Your task to perform on an android device: Show me the alarms in the clock app Image 0: 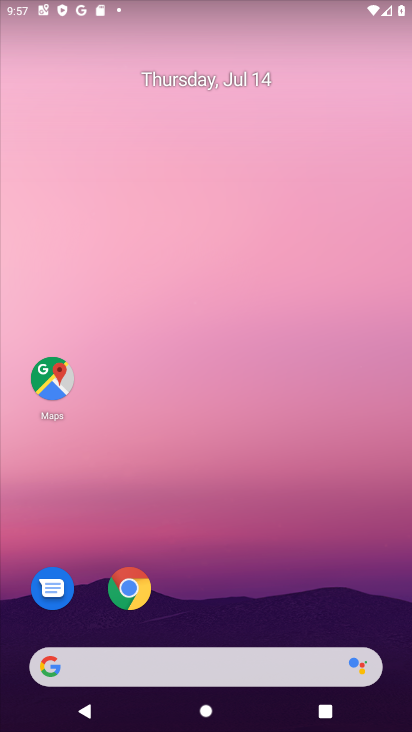
Step 0: drag from (180, 665) to (312, 156)
Your task to perform on an android device: Show me the alarms in the clock app Image 1: 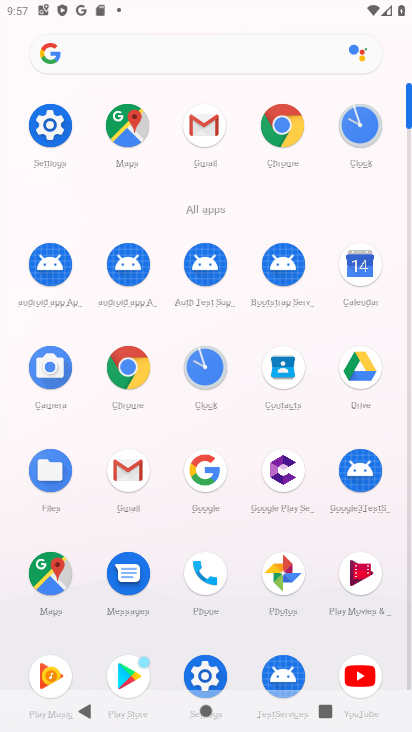
Step 1: click (201, 369)
Your task to perform on an android device: Show me the alarms in the clock app Image 2: 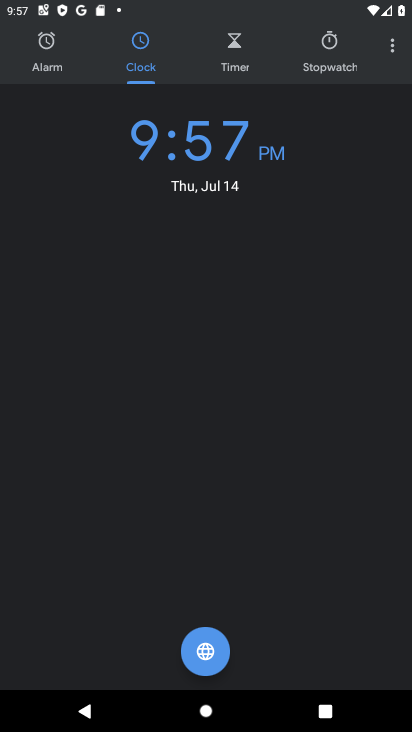
Step 2: click (43, 54)
Your task to perform on an android device: Show me the alarms in the clock app Image 3: 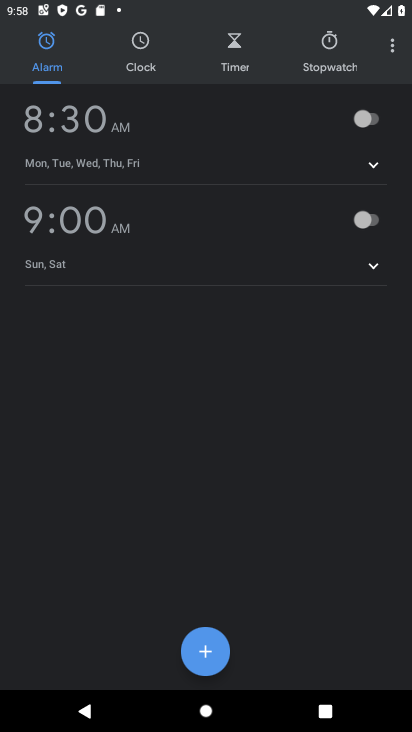
Step 3: task complete